Your task to perform on an android device: Open ESPN.com Image 0: 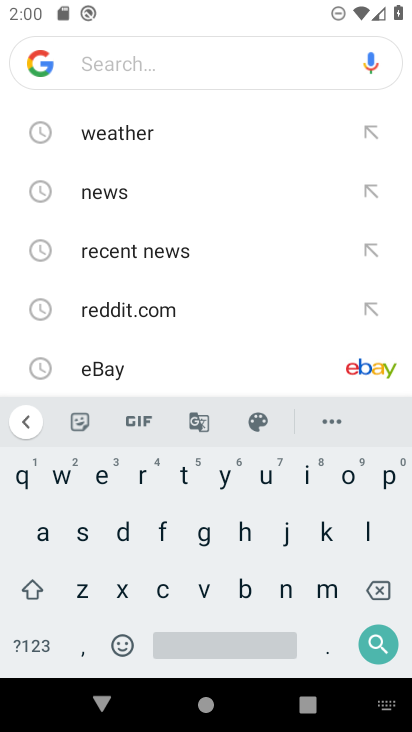
Step 0: press home button
Your task to perform on an android device: Open ESPN.com Image 1: 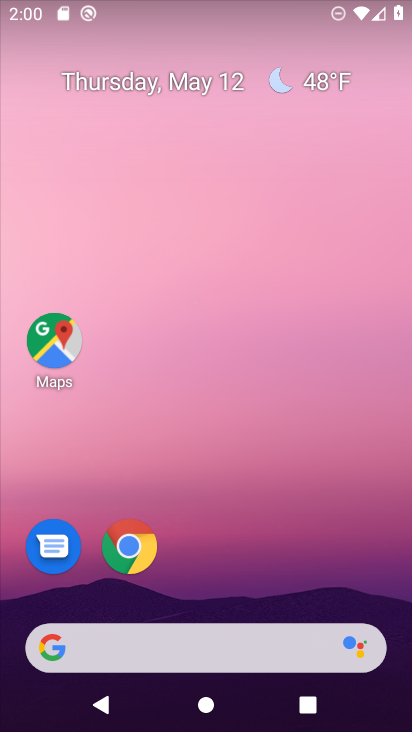
Step 1: drag from (272, 668) to (180, 216)
Your task to perform on an android device: Open ESPN.com Image 2: 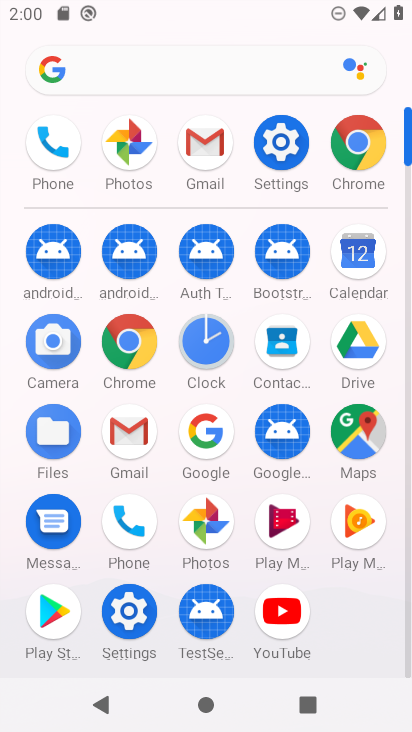
Step 2: click (365, 156)
Your task to perform on an android device: Open ESPN.com Image 3: 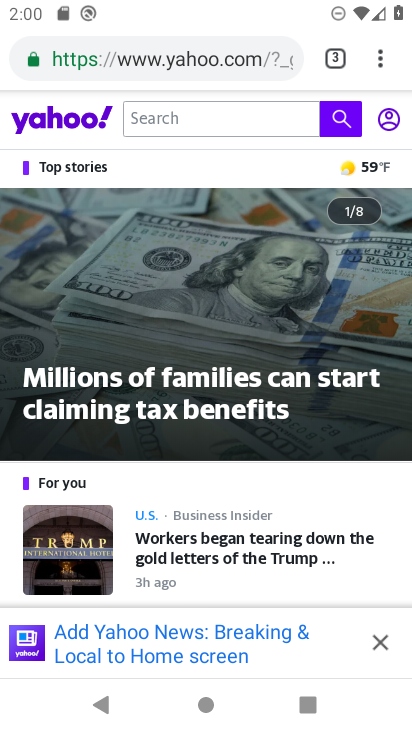
Step 3: click (143, 75)
Your task to perform on an android device: Open ESPN.com Image 4: 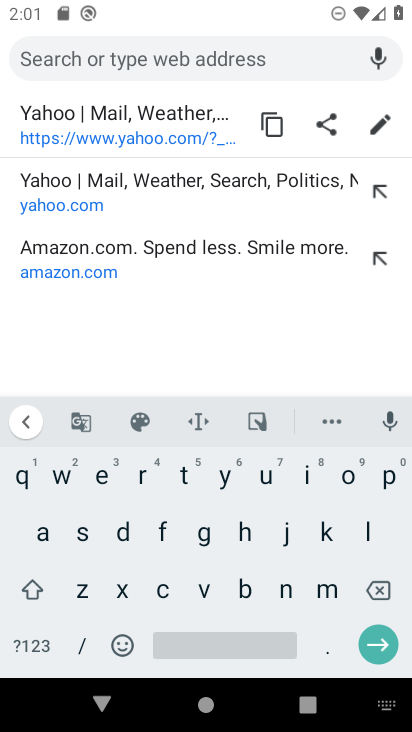
Step 4: click (103, 474)
Your task to perform on an android device: Open ESPN.com Image 5: 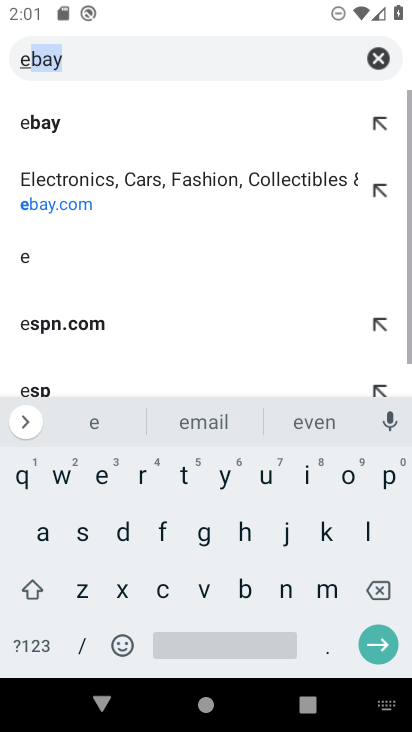
Step 5: click (77, 533)
Your task to perform on an android device: Open ESPN.com Image 6: 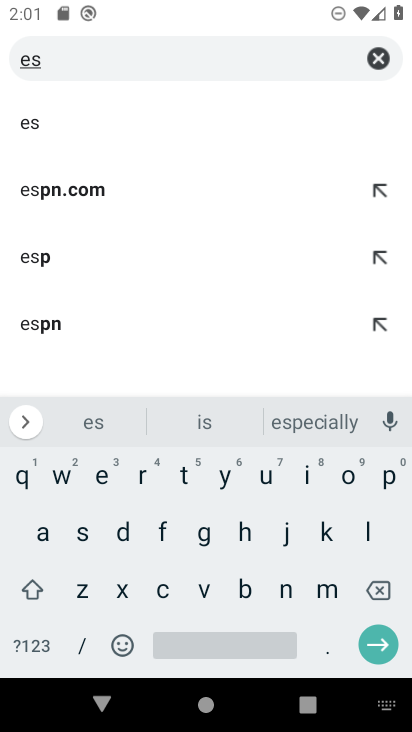
Step 6: click (120, 193)
Your task to perform on an android device: Open ESPN.com Image 7: 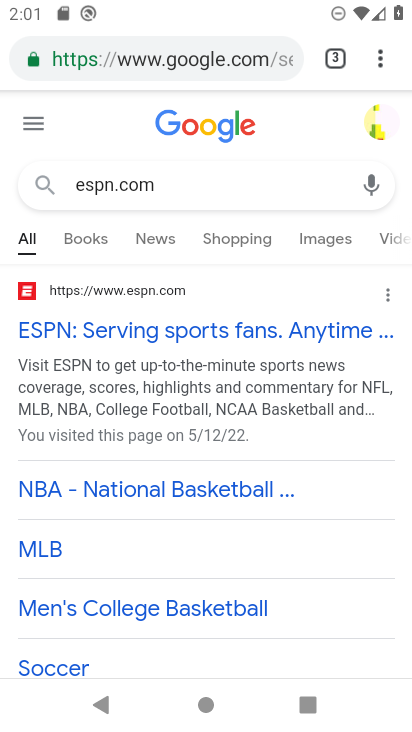
Step 7: click (61, 328)
Your task to perform on an android device: Open ESPN.com Image 8: 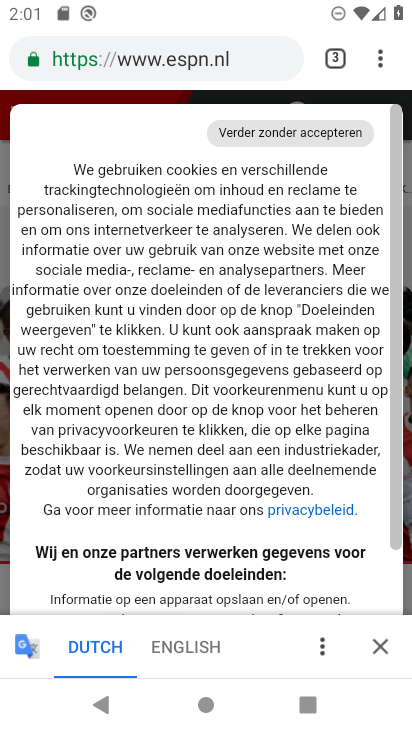
Step 8: task complete